Your task to perform on an android device: Search for a new perfume Image 0: 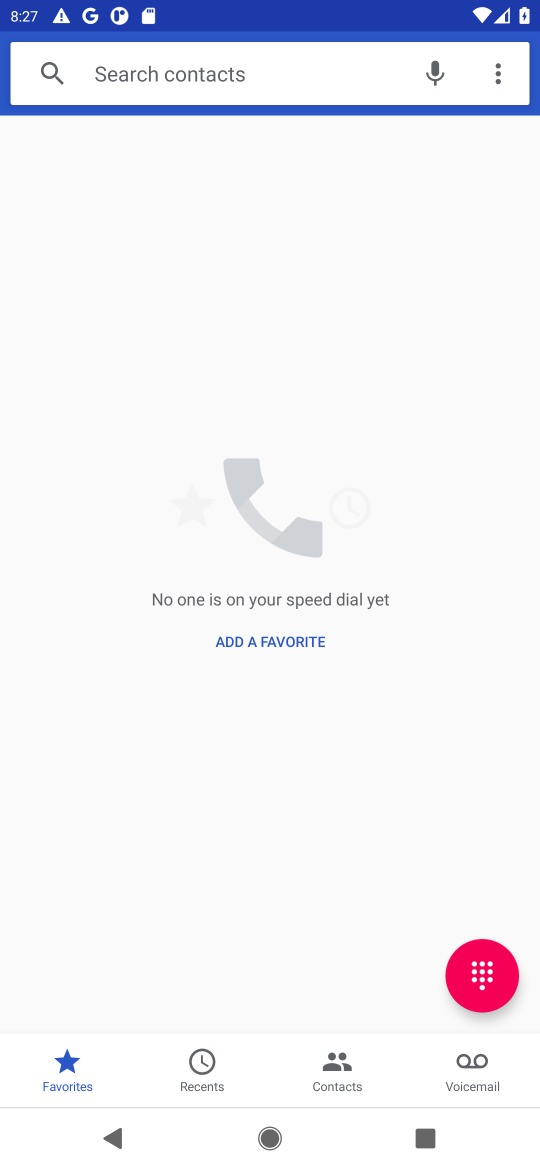
Step 0: press home button
Your task to perform on an android device: Search for a new perfume Image 1: 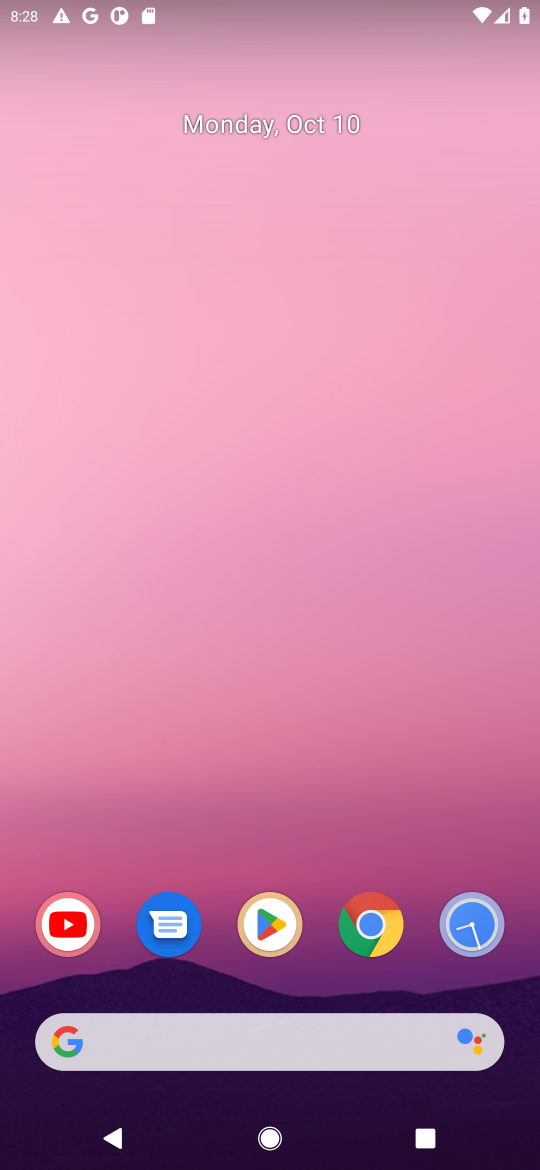
Step 1: drag from (249, 996) to (320, 298)
Your task to perform on an android device: Search for a new perfume Image 2: 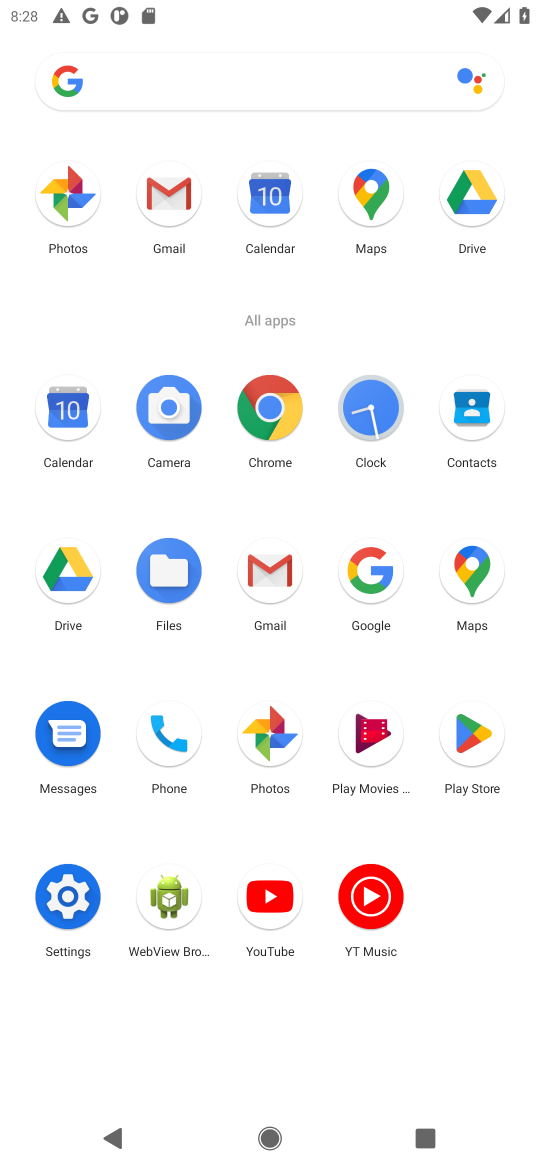
Step 2: click (374, 606)
Your task to perform on an android device: Search for a new perfume Image 3: 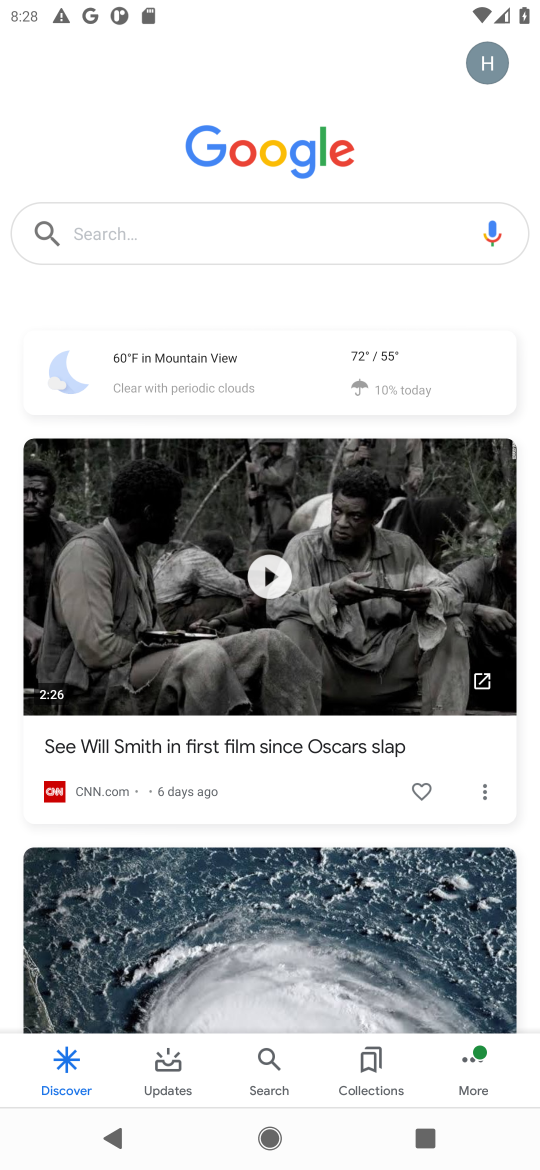
Step 3: drag from (232, 875) to (530, 140)
Your task to perform on an android device: Search for a new perfume Image 4: 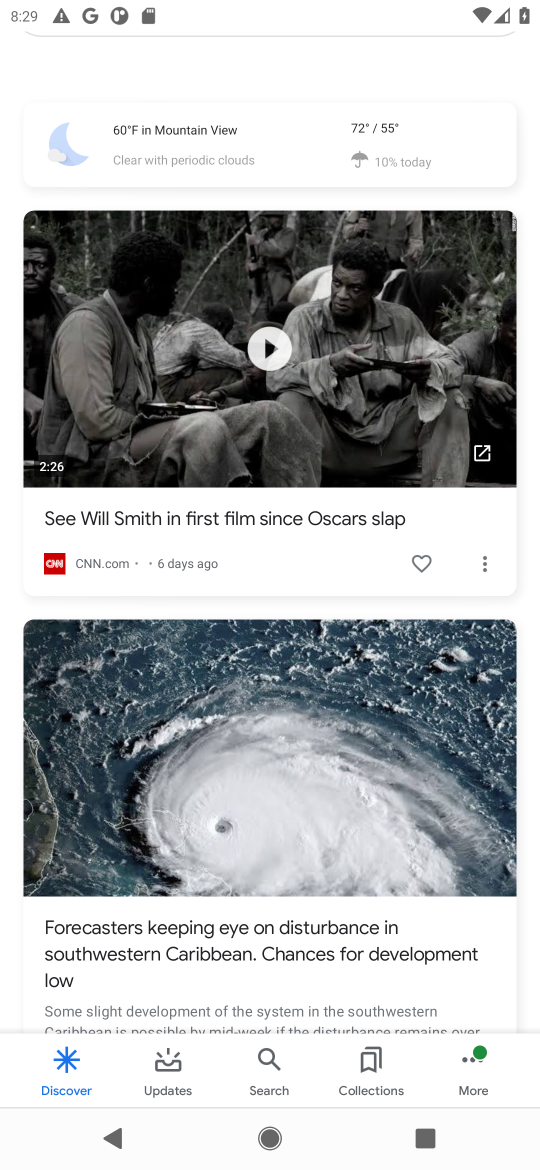
Step 4: drag from (222, 219) to (298, 536)
Your task to perform on an android device: Search for a new perfume Image 5: 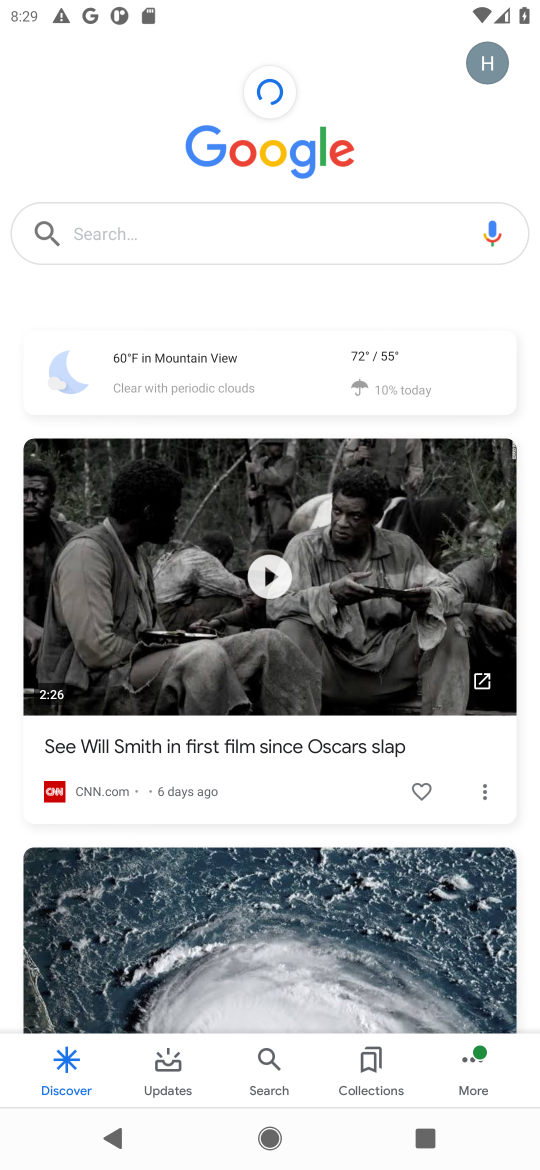
Step 5: drag from (295, 304) to (314, 597)
Your task to perform on an android device: Search for a new perfume Image 6: 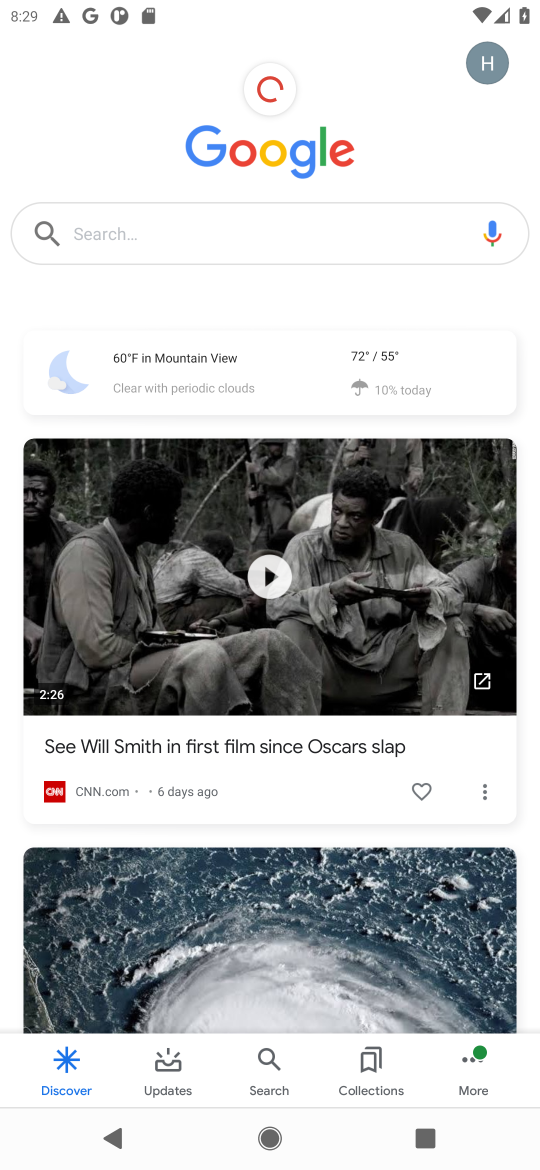
Step 6: click (349, 239)
Your task to perform on an android device: Search for a new perfume Image 7: 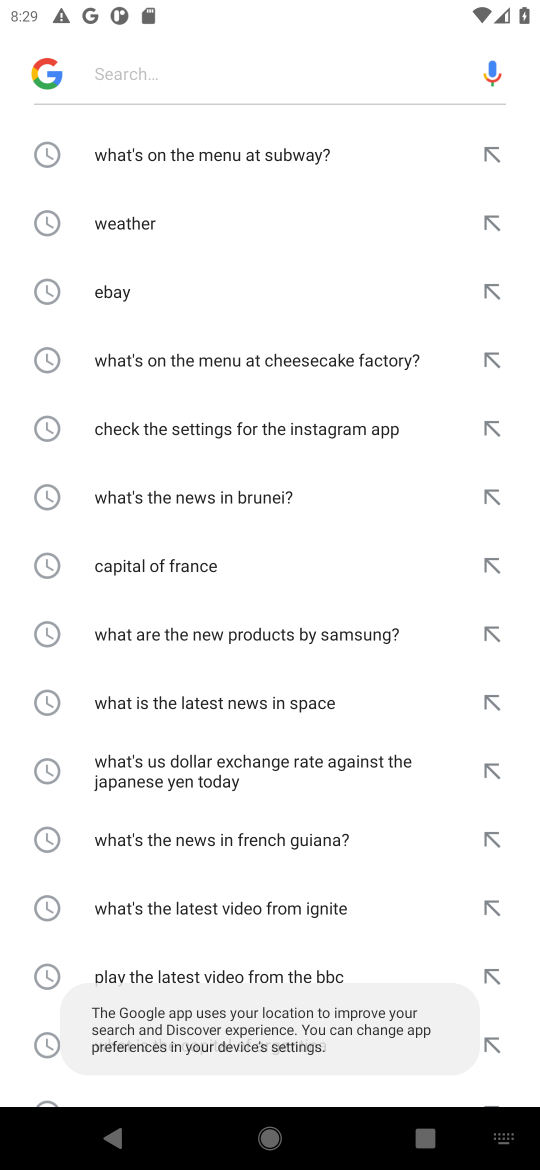
Step 7: type "new perfume"
Your task to perform on an android device: Search for a new perfume Image 8: 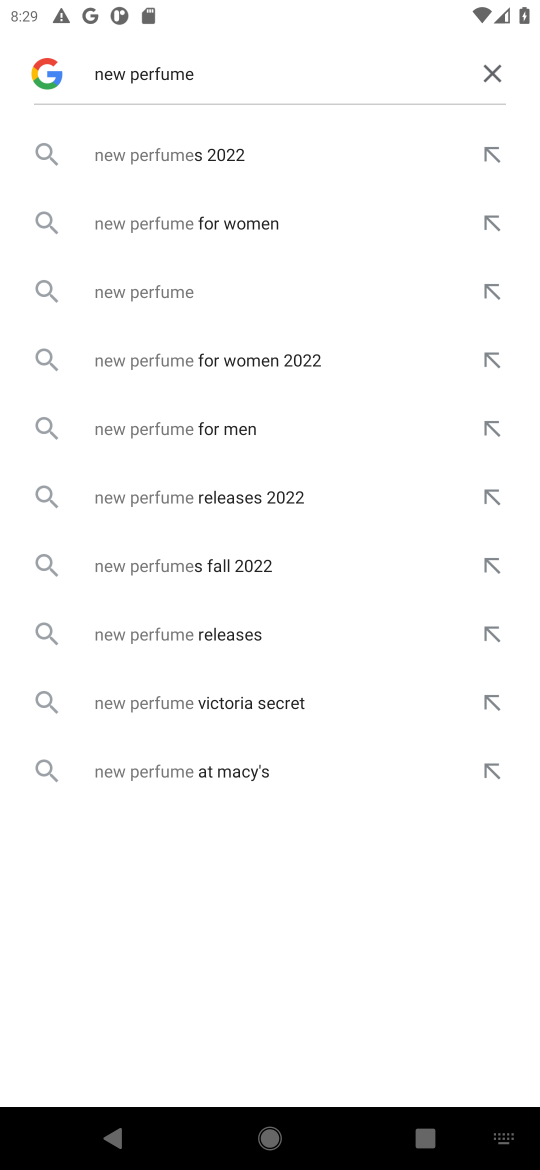
Step 8: click (227, 154)
Your task to perform on an android device: Search for a new perfume Image 9: 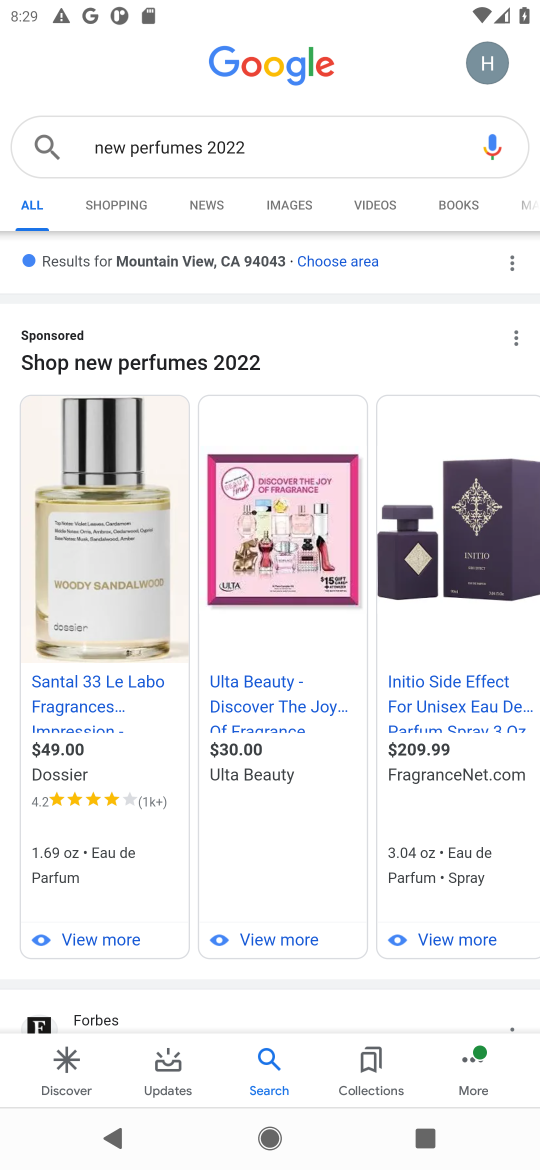
Step 9: task complete